Your task to perform on an android device: empty trash in the gmail app Image 0: 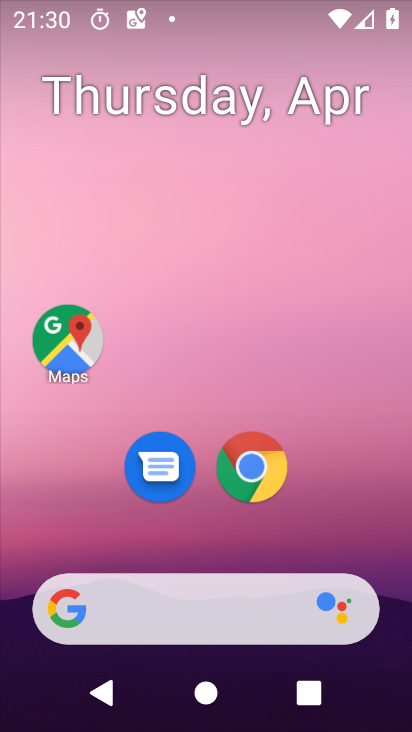
Step 0: drag from (179, 551) to (366, 375)
Your task to perform on an android device: empty trash in the gmail app Image 1: 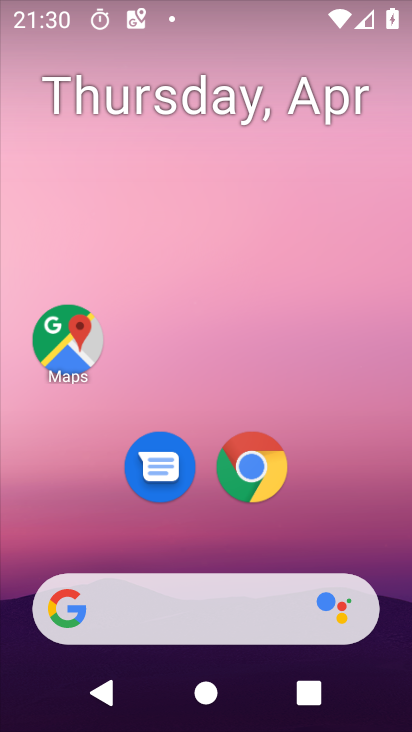
Step 1: click (362, 475)
Your task to perform on an android device: empty trash in the gmail app Image 2: 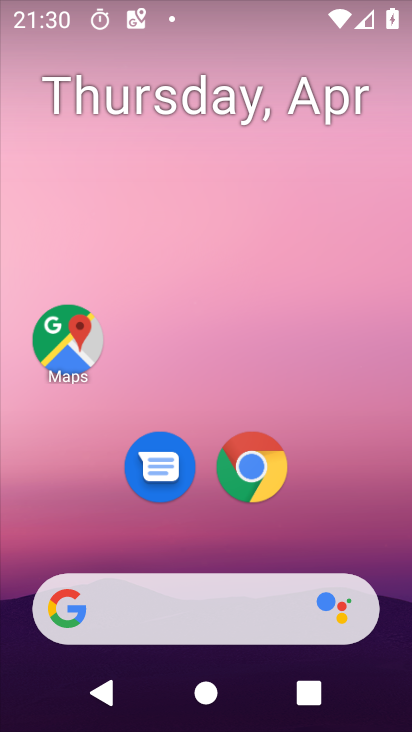
Step 2: drag from (297, 548) to (280, 5)
Your task to perform on an android device: empty trash in the gmail app Image 3: 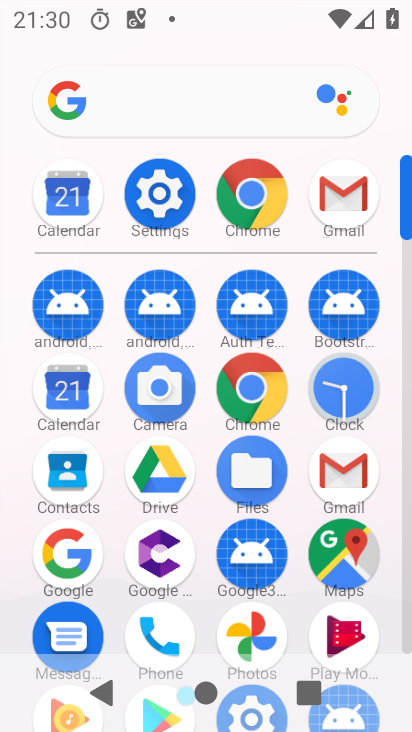
Step 3: click (351, 484)
Your task to perform on an android device: empty trash in the gmail app Image 4: 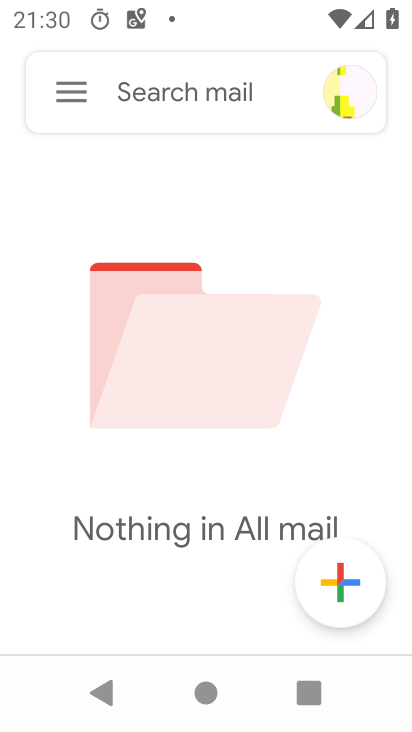
Step 4: click (84, 79)
Your task to perform on an android device: empty trash in the gmail app Image 5: 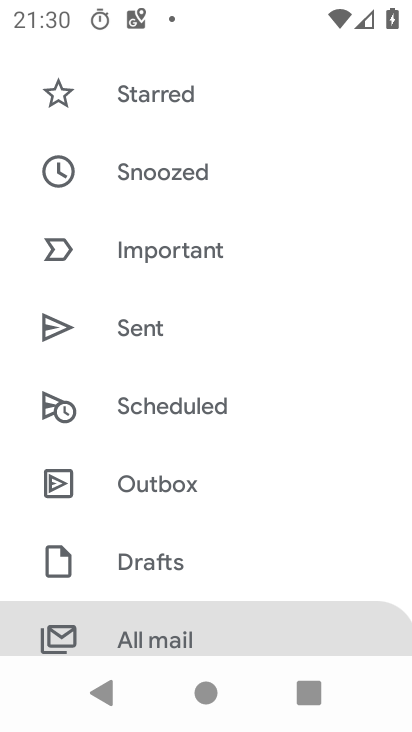
Step 5: drag from (173, 522) to (177, 16)
Your task to perform on an android device: empty trash in the gmail app Image 6: 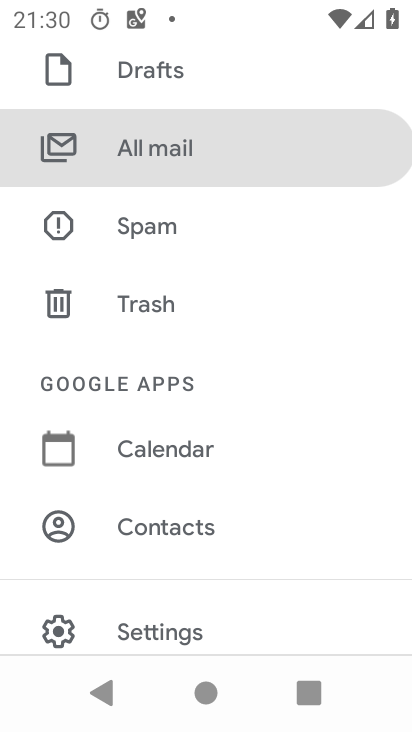
Step 6: click (137, 318)
Your task to perform on an android device: empty trash in the gmail app Image 7: 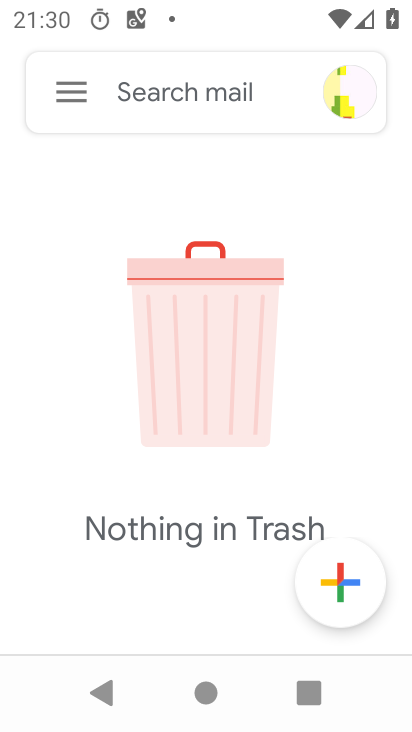
Step 7: task complete